Your task to perform on an android device: Open eBay Image 0: 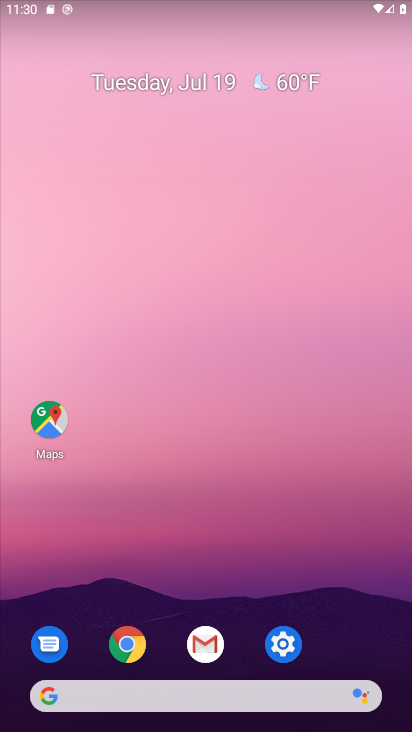
Step 0: click (117, 642)
Your task to perform on an android device: Open eBay Image 1: 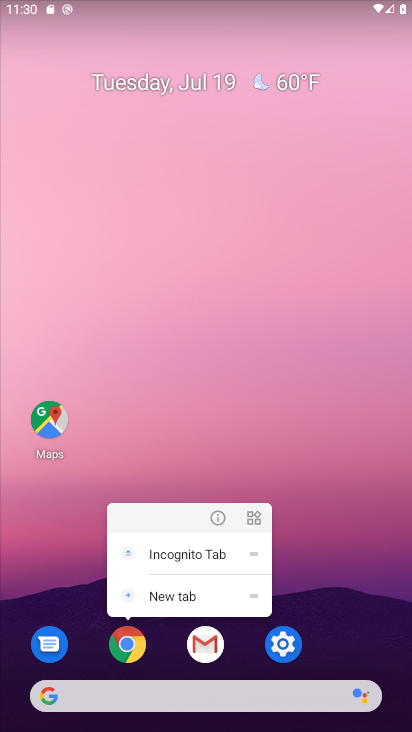
Step 1: click (136, 636)
Your task to perform on an android device: Open eBay Image 2: 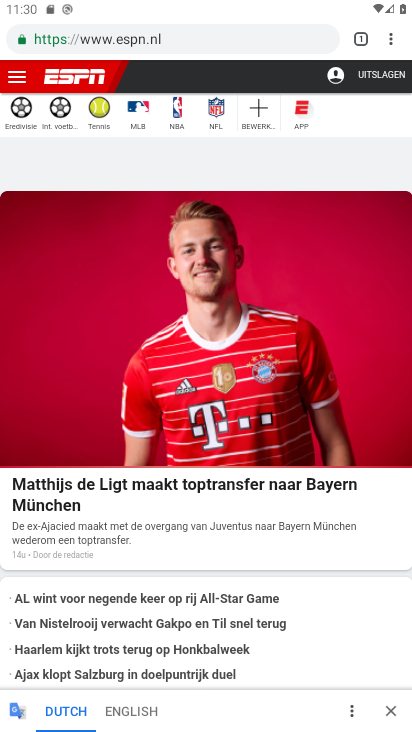
Step 2: click (353, 41)
Your task to perform on an android device: Open eBay Image 3: 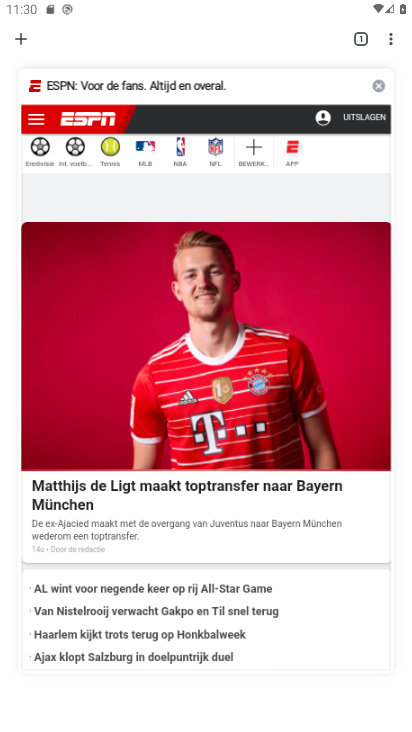
Step 3: click (23, 44)
Your task to perform on an android device: Open eBay Image 4: 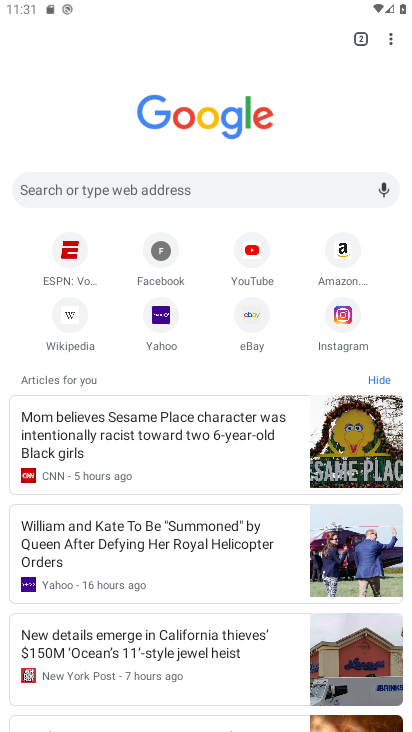
Step 4: click (252, 319)
Your task to perform on an android device: Open eBay Image 5: 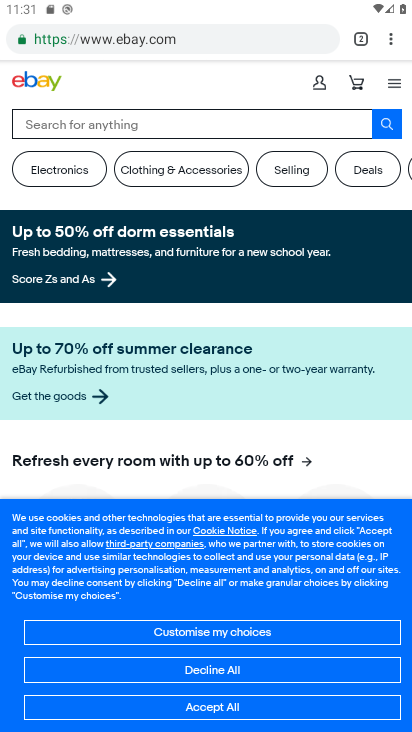
Step 5: task complete